Your task to perform on an android device: turn off location Image 0: 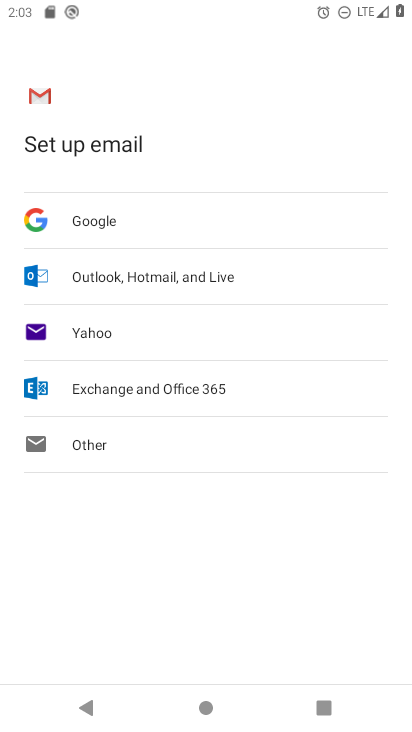
Step 0: press home button
Your task to perform on an android device: turn off location Image 1: 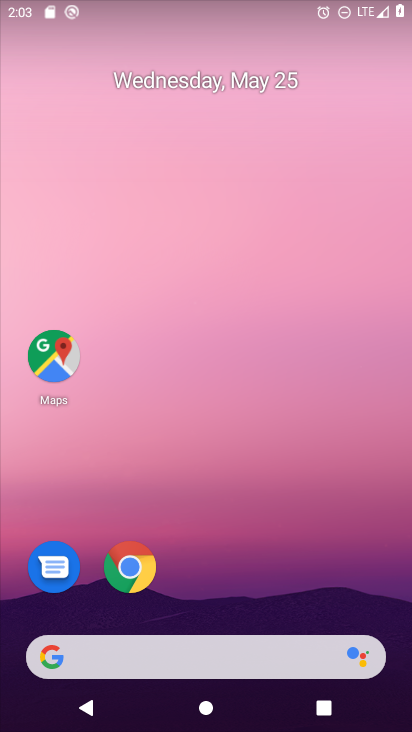
Step 1: drag from (399, 676) to (378, 140)
Your task to perform on an android device: turn off location Image 2: 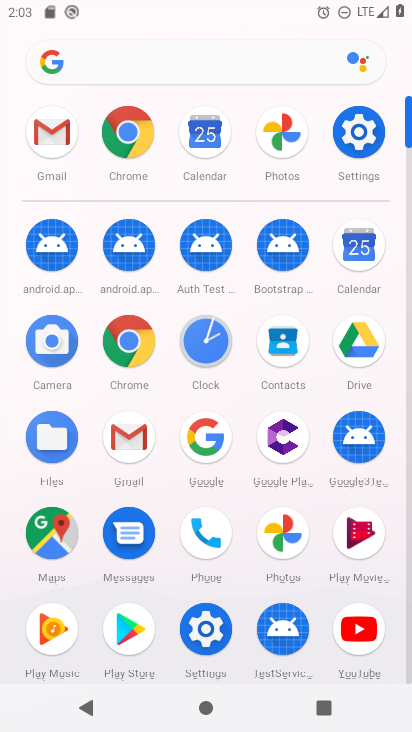
Step 2: click (356, 125)
Your task to perform on an android device: turn off location Image 3: 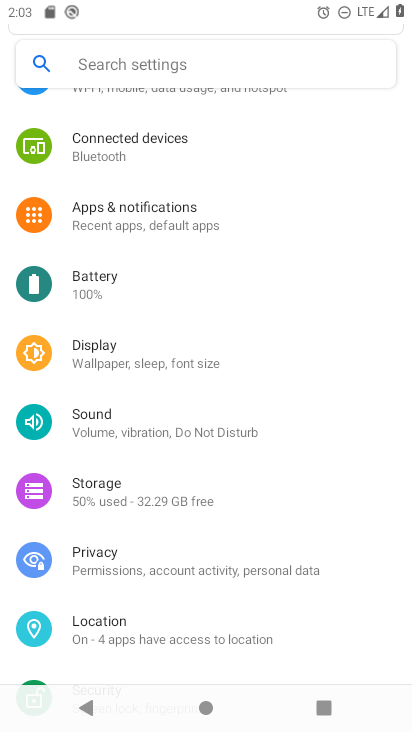
Step 3: click (94, 626)
Your task to perform on an android device: turn off location Image 4: 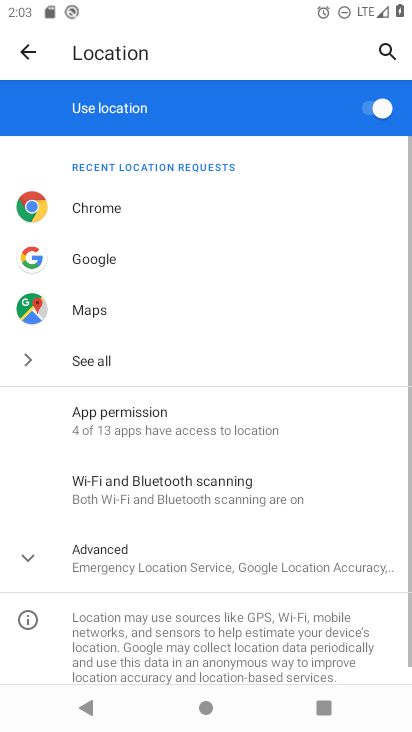
Step 4: click (370, 108)
Your task to perform on an android device: turn off location Image 5: 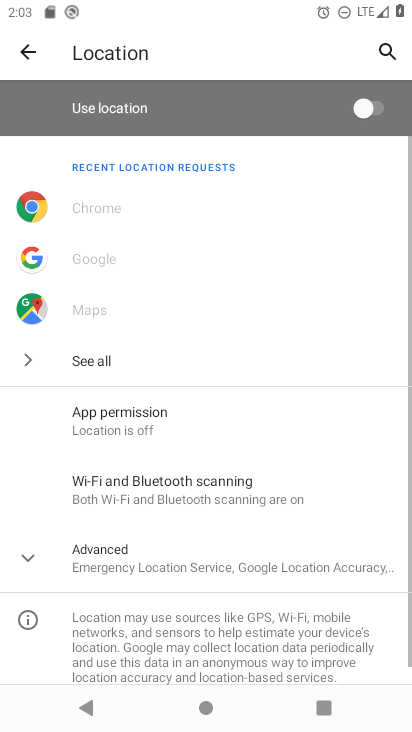
Step 5: task complete